Your task to perform on an android device: Open the phone app and click the voicemail tab. Image 0: 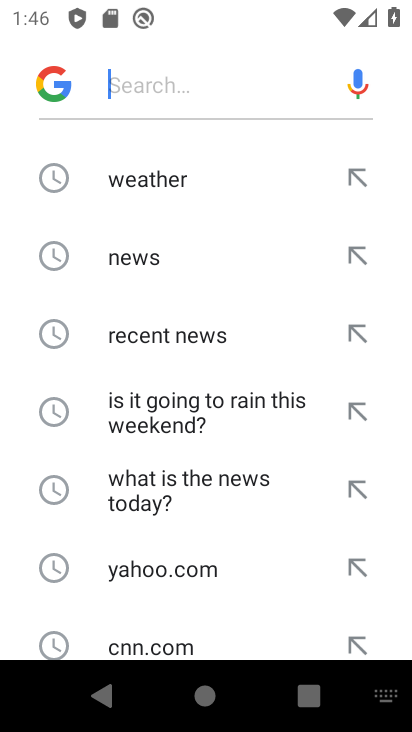
Step 0: press home button
Your task to perform on an android device: Open the phone app and click the voicemail tab. Image 1: 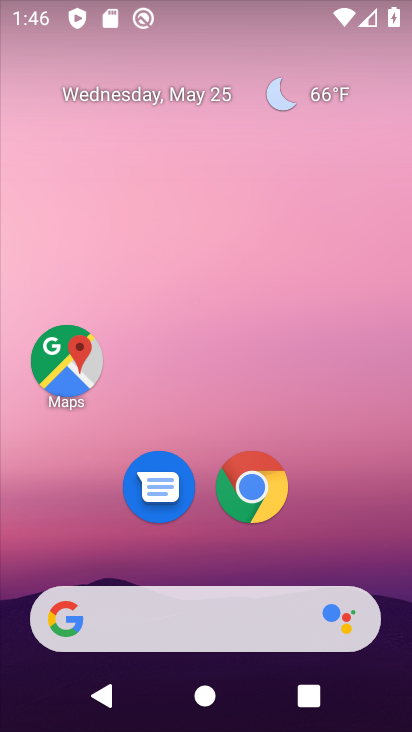
Step 1: drag from (208, 558) to (235, 35)
Your task to perform on an android device: Open the phone app and click the voicemail tab. Image 2: 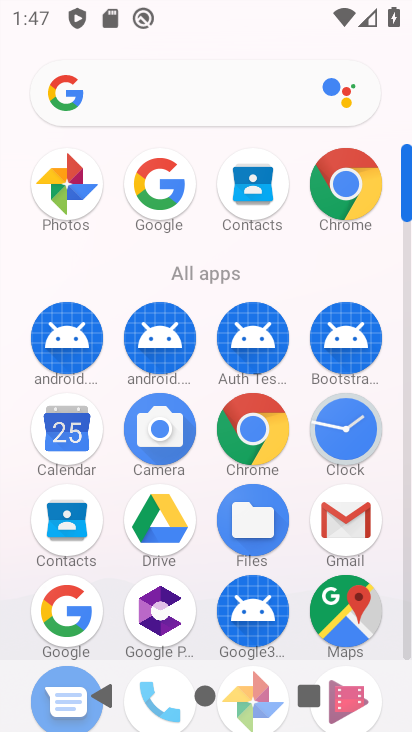
Step 2: drag from (208, 596) to (180, 118)
Your task to perform on an android device: Open the phone app and click the voicemail tab. Image 3: 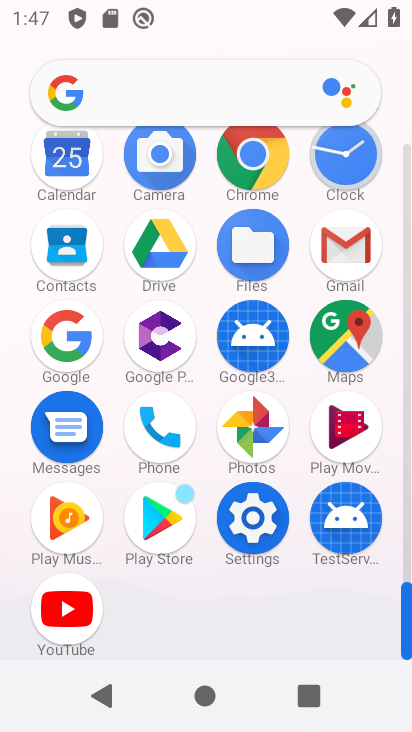
Step 3: click (161, 442)
Your task to perform on an android device: Open the phone app and click the voicemail tab. Image 4: 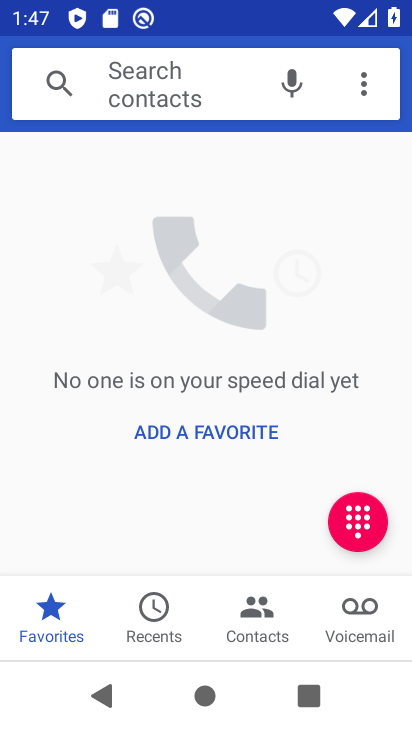
Step 4: click (346, 637)
Your task to perform on an android device: Open the phone app and click the voicemail tab. Image 5: 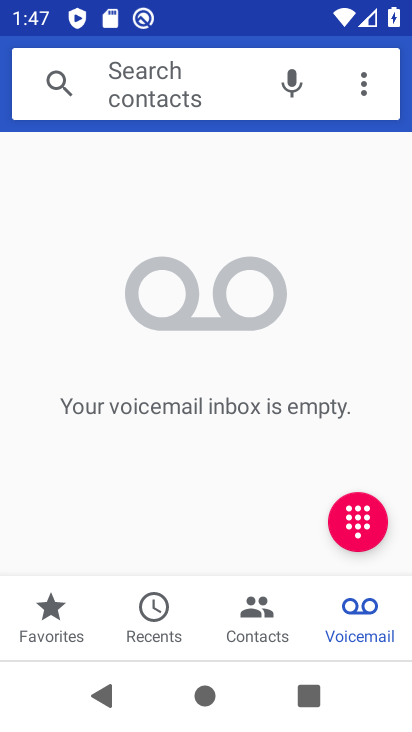
Step 5: task complete